Your task to perform on an android device: Open settings on Google Maps Image 0: 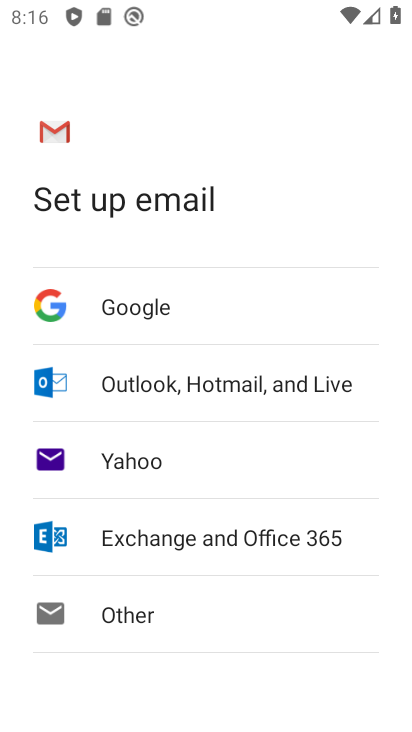
Step 0: press home button
Your task to perform on an android device: Open settings on Google Maps Image 1: 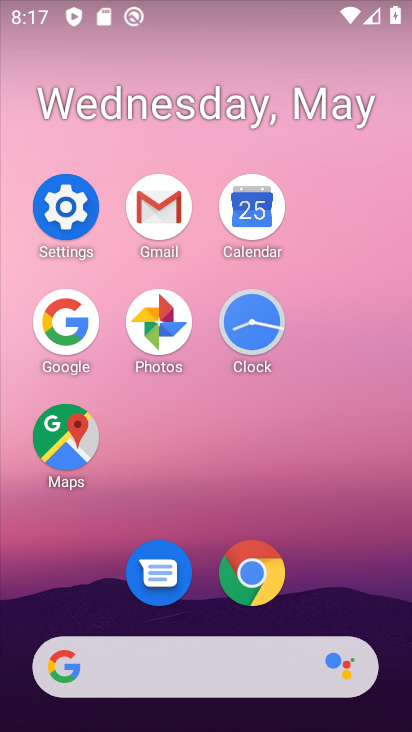
Step 1: click (64, 432)
Your task to perform on an android device: Open settings on Google Maps Image 2: 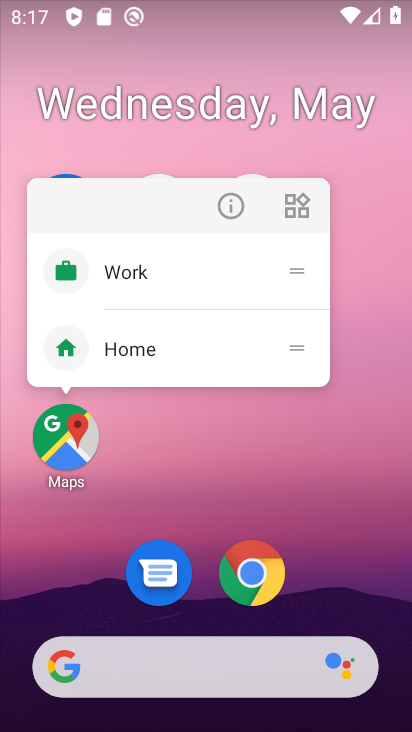
Step 2: click (96, 432)
Your task to perform on an android device: Open settings on Google Maps Image 3: 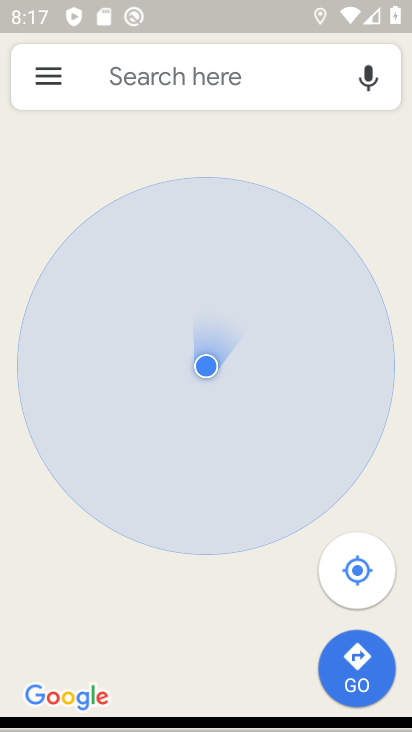
Step 3: click (34, 78)
Your task to perform on an android device: Open settings on Google Maps Image 4: 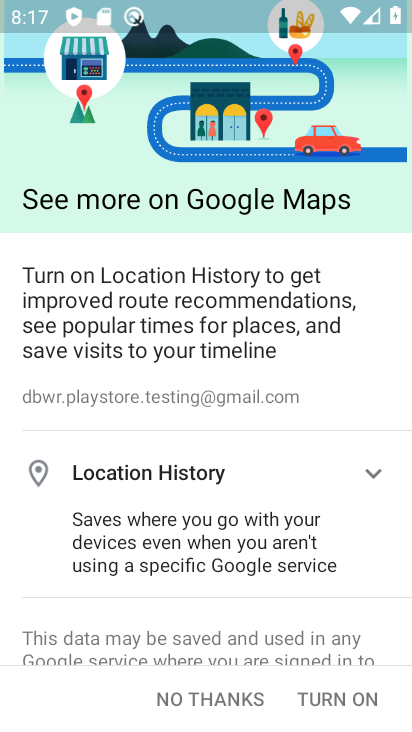
Step 4: click (299, 691)
Your task to perform on an android device: Open settings on Google Maps Image 5: 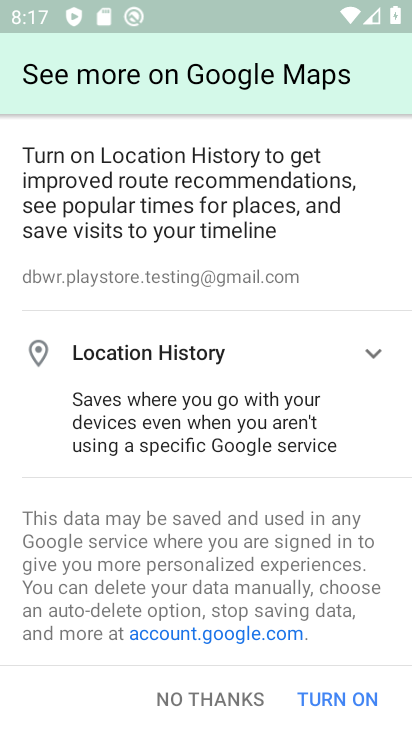
Step 5: click (345, 703)
Your task to perform on an android device: Open settings on Google Maps Image 6: 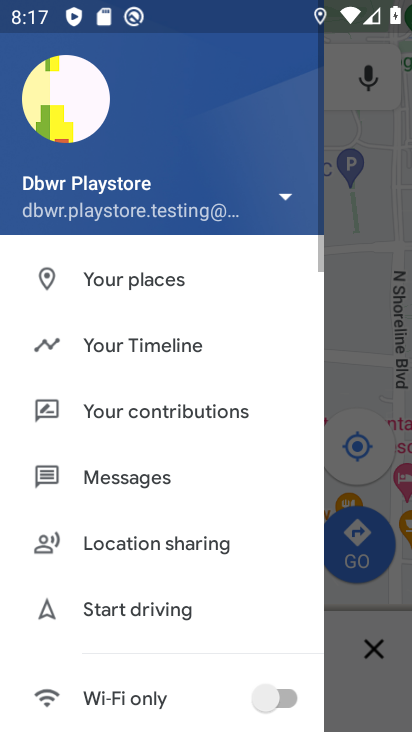
Step 6: drag from (235, 627) to (163, 208)
Your task to perform on an android device: Open settings on Google Maps Image 7: 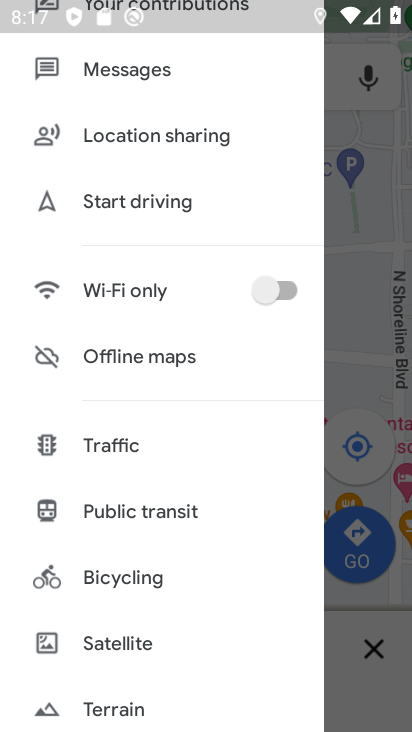
Step 7: drag from (173, 657) to (130, 325)
Your task to perform on an android device: Open settings on Google Maps Image 8: 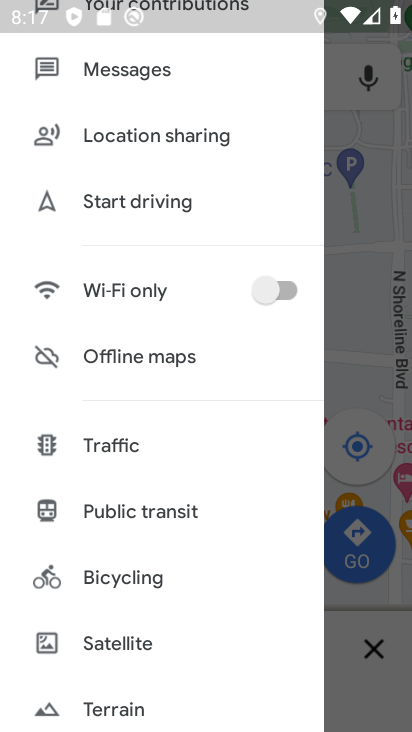
Step 8: drag from (154, 626) to (110, 305)
Your task to perform on an android device: Open settings on Google Maps Image 9: 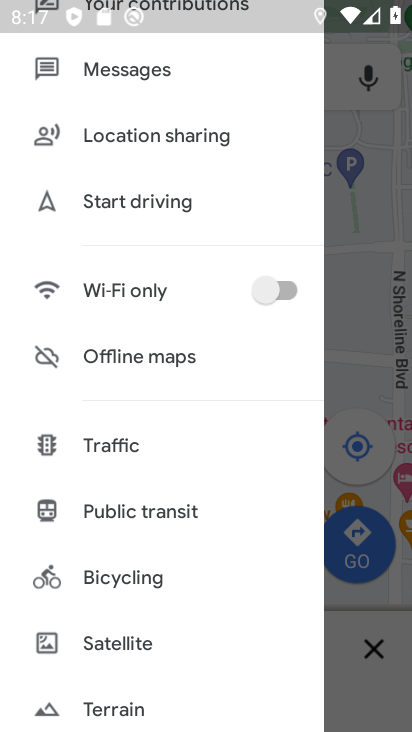
Step 9: drag from (184, 626) to (199, 219)
Your task to perform on an android device: Open settings on Google Maps Image 10: 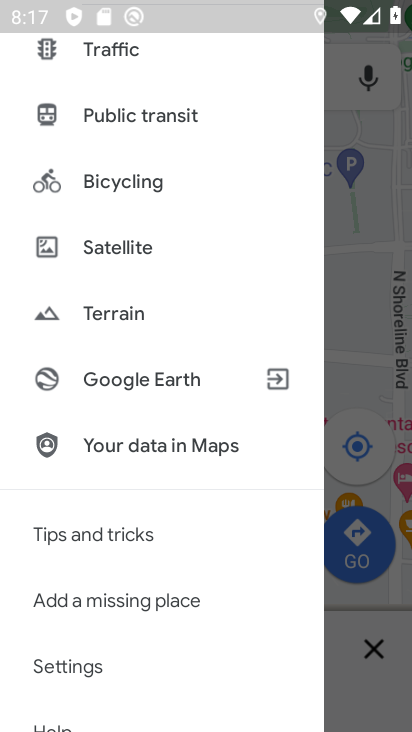
Step 10: drag from (139, 528) to (132, 146)
Your task to perform on an android device: Open settings on Google Maps Image 11: 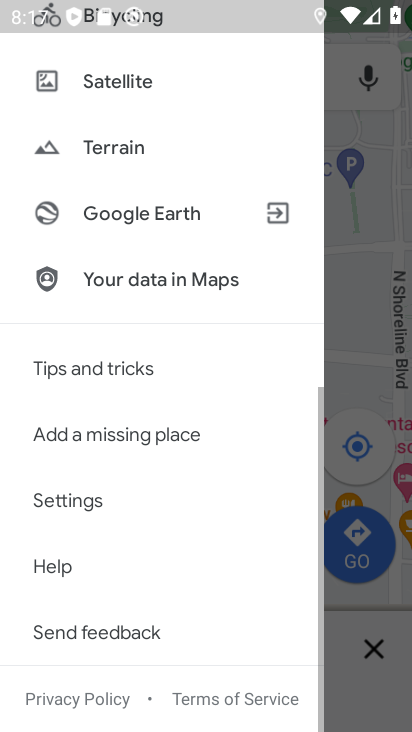
Step 11: click (94, 500)
Your task to perform on an android device: Open settings on Google Maps Image 12: 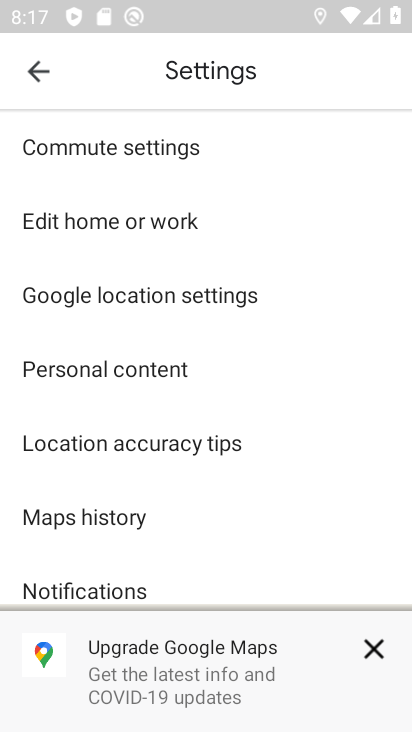
Step 12: task complete